Your task to perform on an android device: turn off translation in the chrome app Image 0: 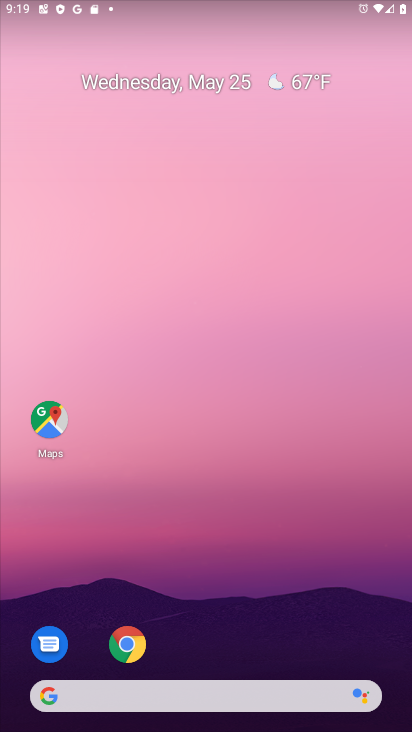
Step 0: press home button
Your task to perform on an android device: turn off translation in the chrome app Image 1: 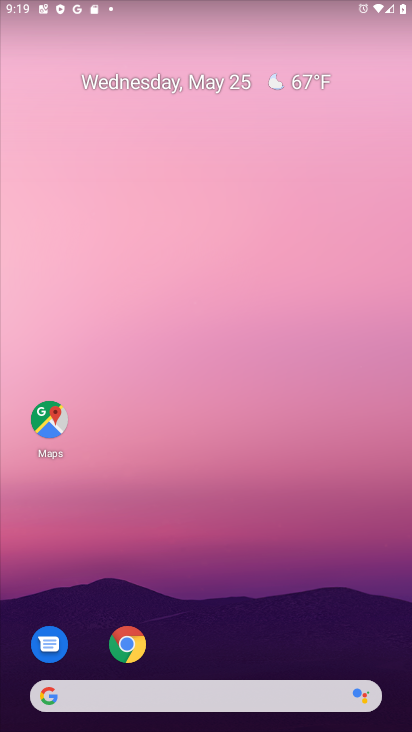
Step 1: click (123, 636)
Your task to perform on an android device: turn off translation in the chrome app Image 2: 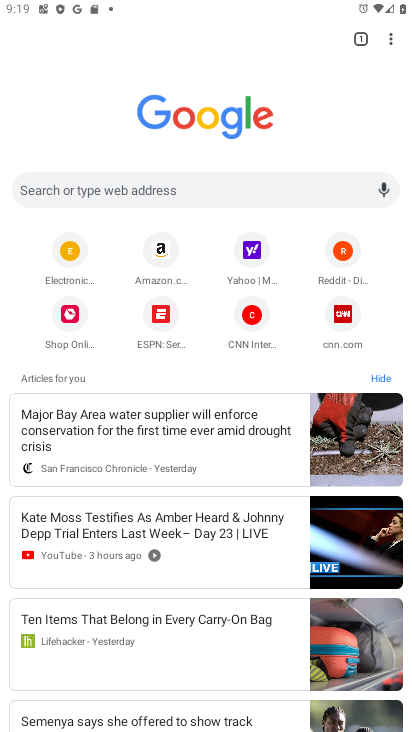
Step 2: click (387, 36)
Your task to perform on an android device: turn off translation in the chrome app Image 3: 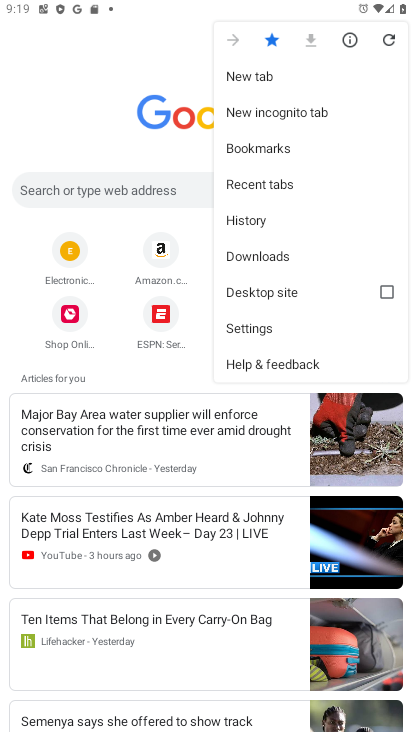
Step 3: click (278, 322)
Your task to perform on an android device: turn off translation in the chrome app Image 4: 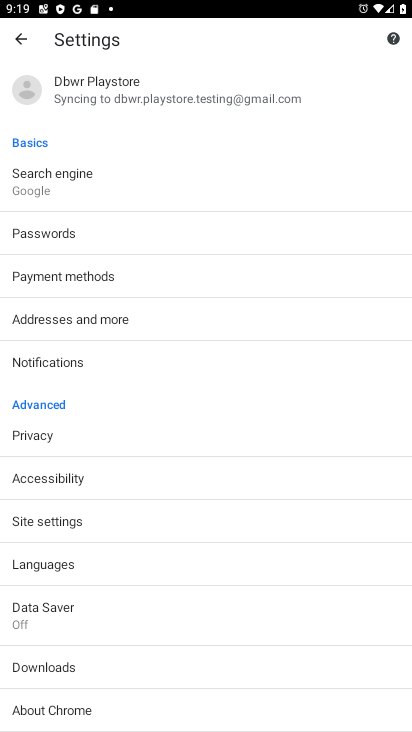
Step 4: click (103, 564)
Your task to perform on an android device: turn off translation in the chrome app Image 5: 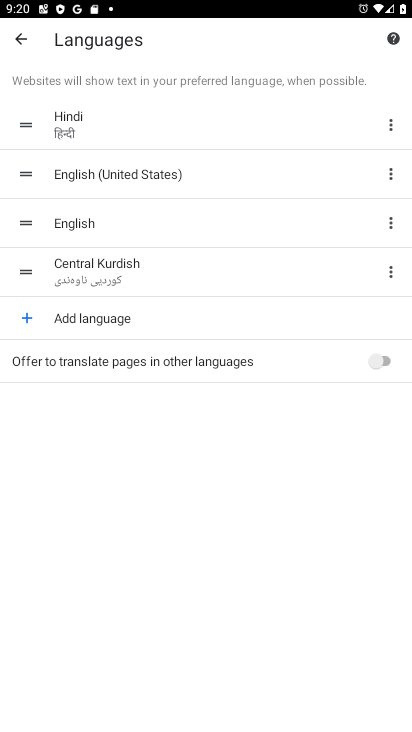
Step 5: task complete